Your task to perform on an android device: open chrome and create a bookmark for the current page Image 0: 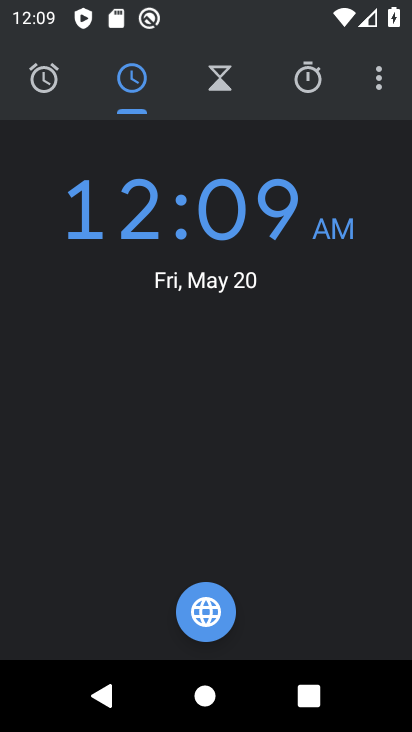
Step 0: press back button
Your task to perform on an android device: open chrome and create a bookmark for the current page Image 1: 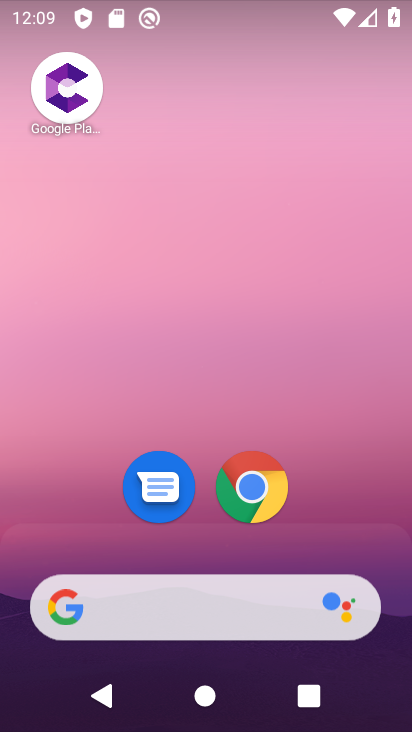
Step 1: click (269, 483)
Your task to perform on an android device: open chrome and create a bookmark for the current page Image 2: 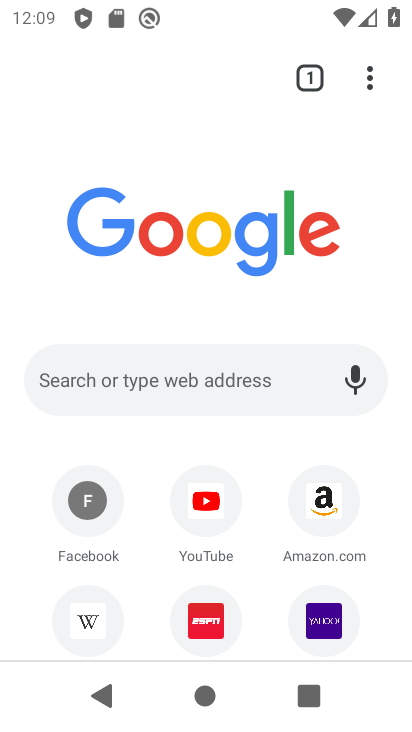
Step 2: task complete